Your task to perform on an android device: check google app version Image 0: 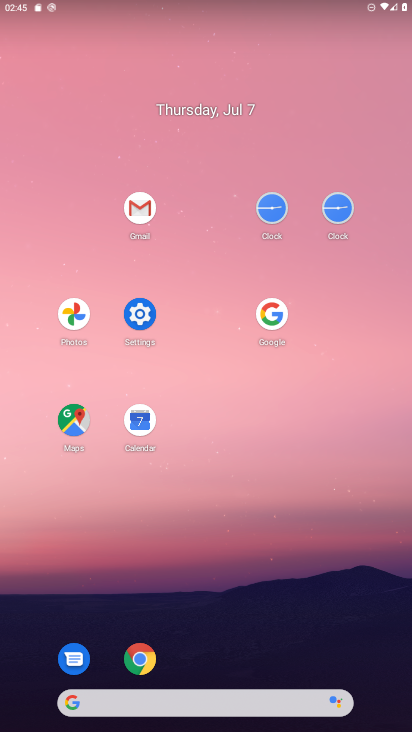
Step 0: click (278, 306)
Your task to perform on an android device: check google app version Image 1: 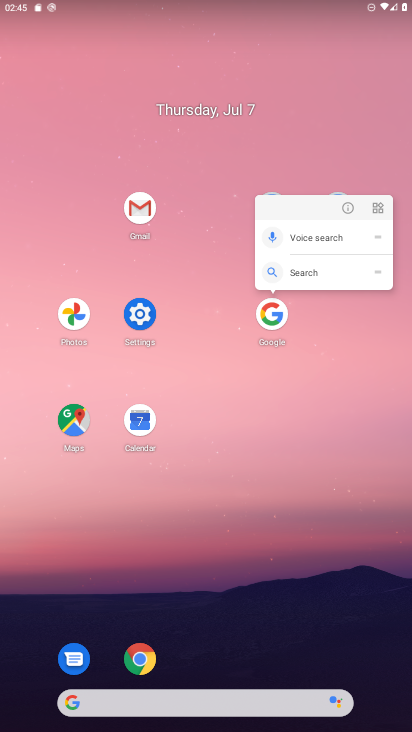
Step 1: click (349, 214)
Your task to perform on an android device: check google app version Image 2: 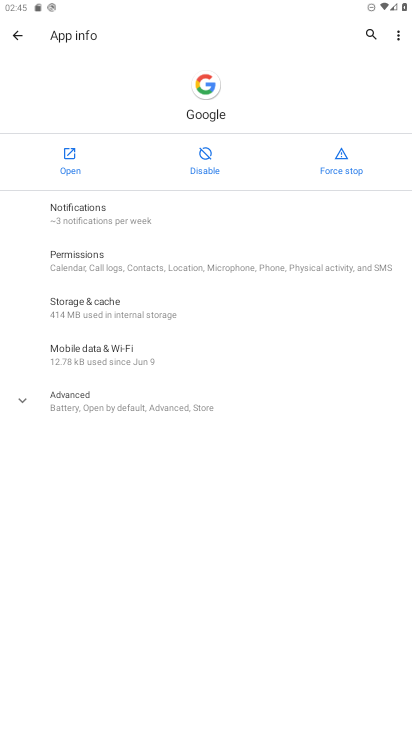
Step 2: click (181, 432)
Your task to perform on an android device: check google app version Image 3: 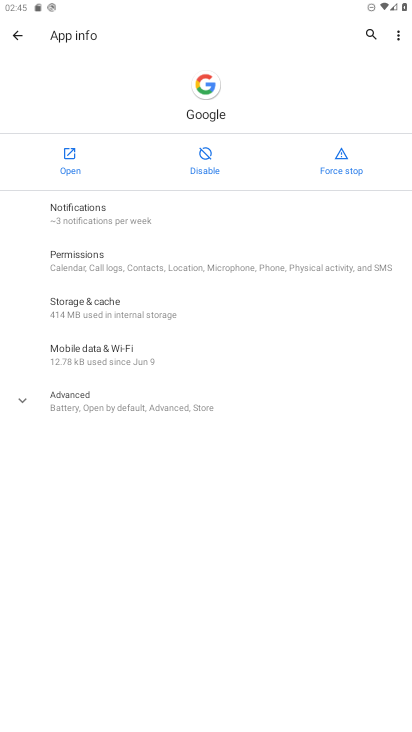
Step 3: click (190, 408)
Your task to perform on an android device: check google app version Image 4: 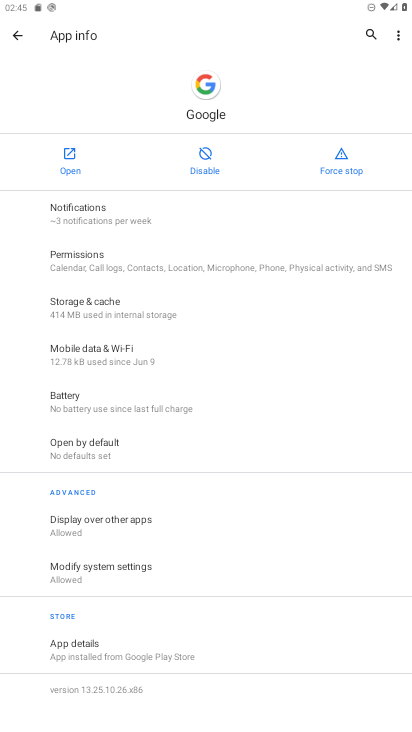
Step 4: task complete